Your task to perform on an android device: Search for seafood restaurants on Google Maps Image 0: 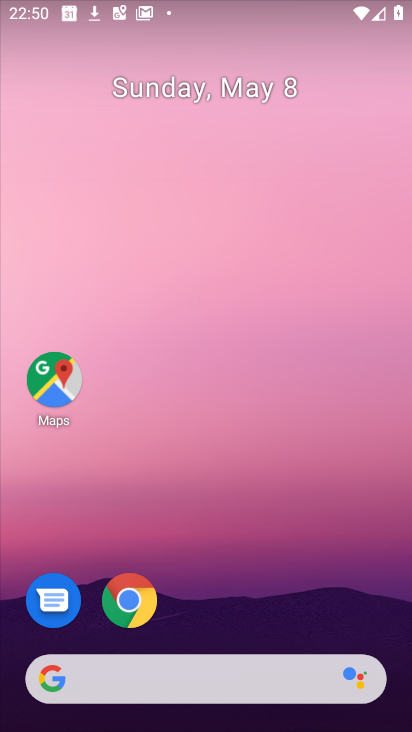
Step 0: click (261, 167)
Your task to perform on an android device: Search for seafood restaurants on Google Maps Image 1: 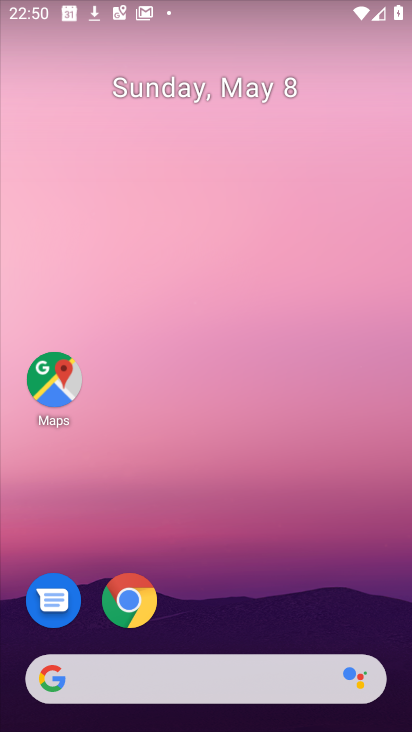
Step 1: drag from (229, 662) to (218, 180)
Your task to perform on an android device: Search for seafood restaurants on Google Maps Image 2: 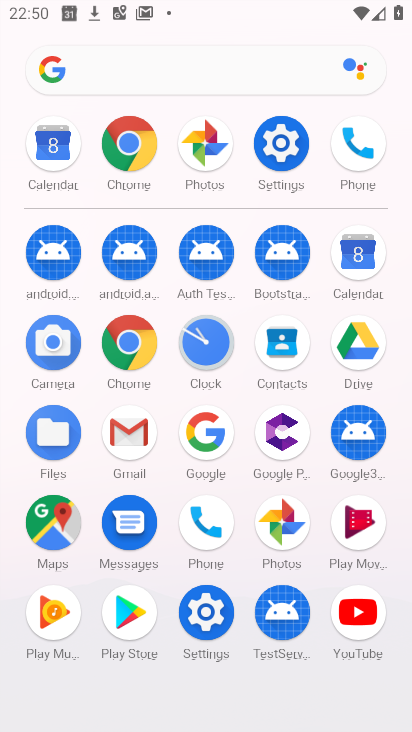
Step 2: click (51, 528)
Your task to perform on an android device: Search for seafood restaurants on Google Maps Image 3: 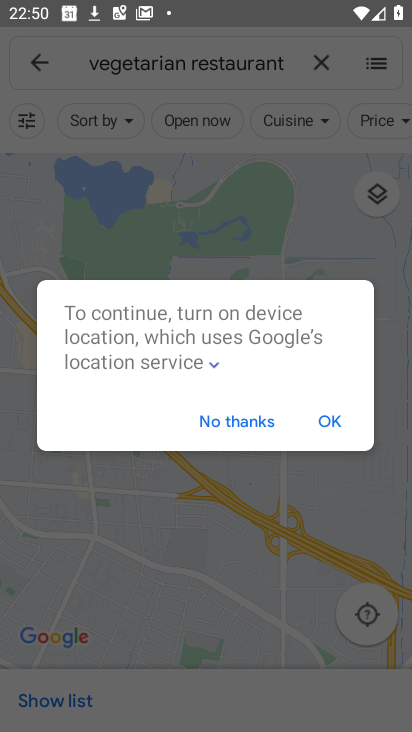
Step 3: click (237, 428)
Your task to perform on an android device: Search for seafood restaurants on Google Maps Image 4: 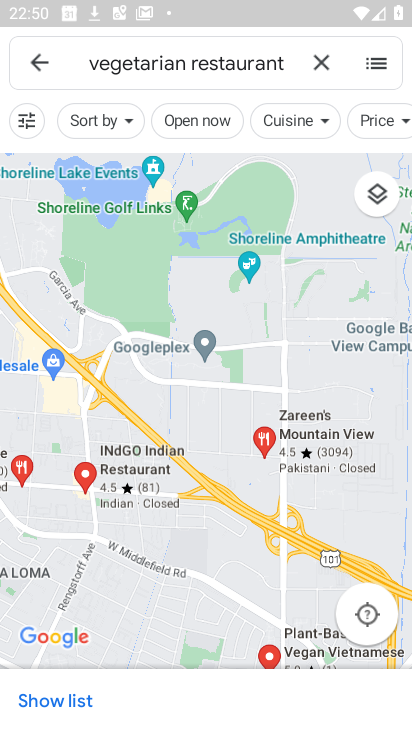
Step 4: click (41, 61)
Your task to perform on an android device: Search for seafood restaurants on Google Maps Image 5: 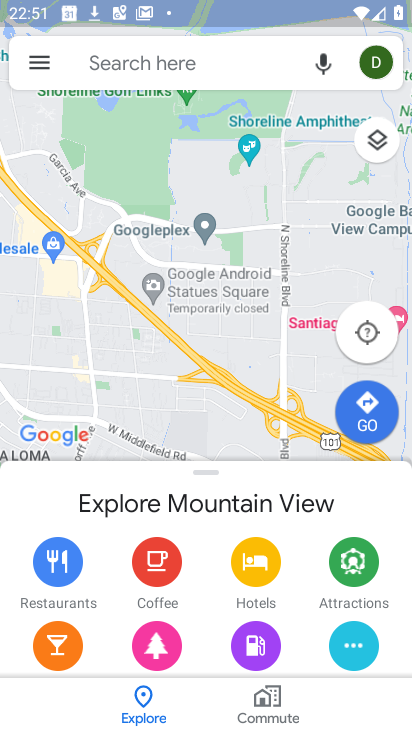
Step 5: click (118, 66)
Your task to perform on an android device: Search for seafood restaurants on Google Maps Image 6: 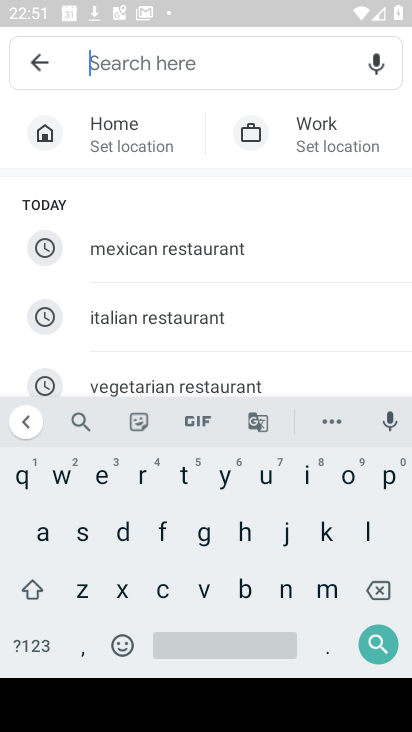
Step 6: click (81, 535)
Your task to perform on an android device: Search for seafood restaurants on Google Maps Image 7: 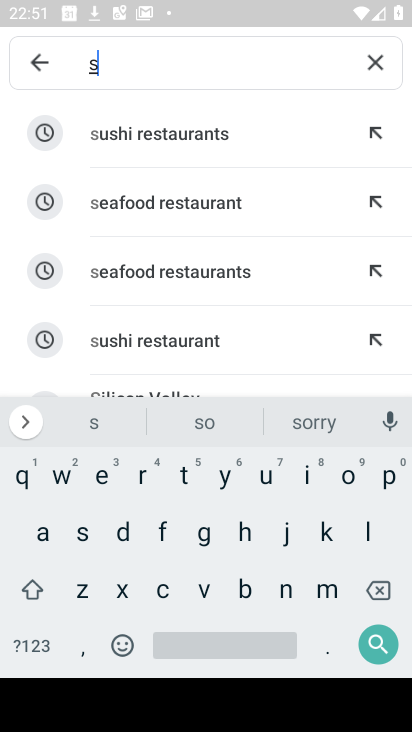
Step 7: click (160, 208)
Your task to perform on an android device: Search for seafood restaurants on Google Maps Image 8: 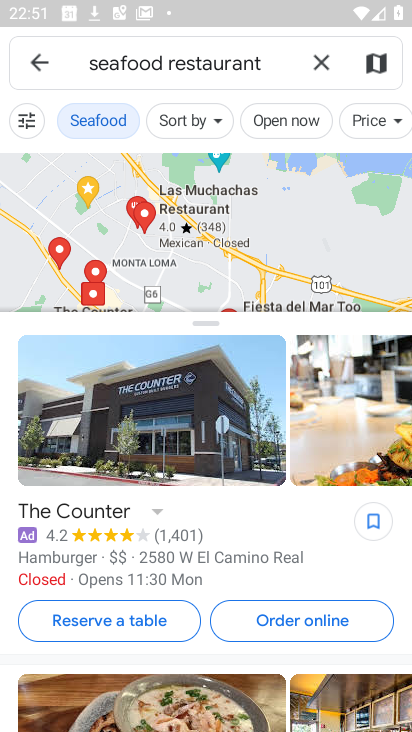
Step 8: click (158, 239)
Your task to perform on an android device: Search for seafood restaurants on Google Maps Image 9: 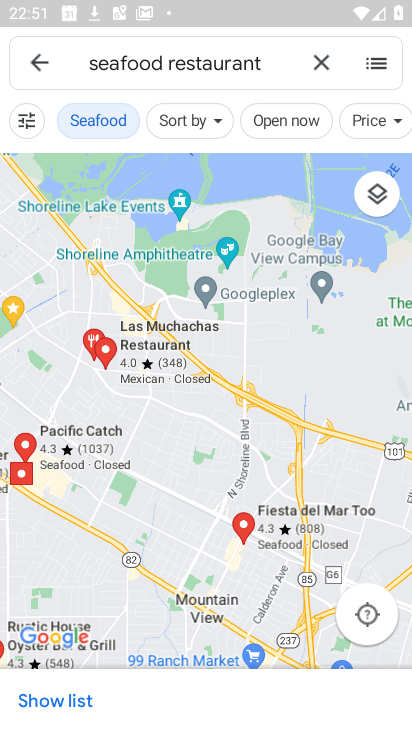
Step 9: task complete